Your task to perform on an android device: When is my next appointment? Image 0: 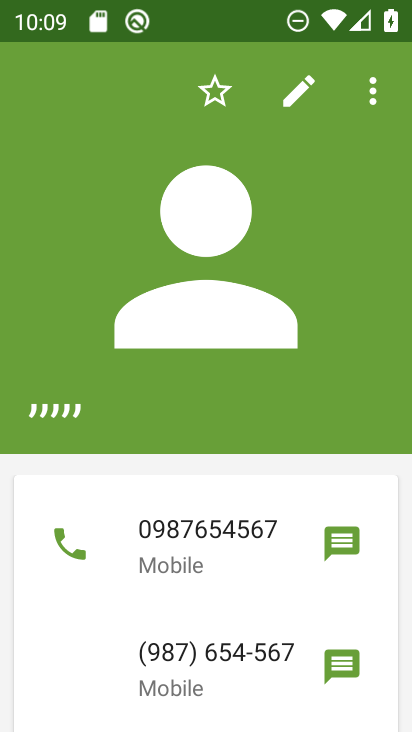
Step 0: press home button
Your task to perform on an android device: When is my next appointment? Image 1: 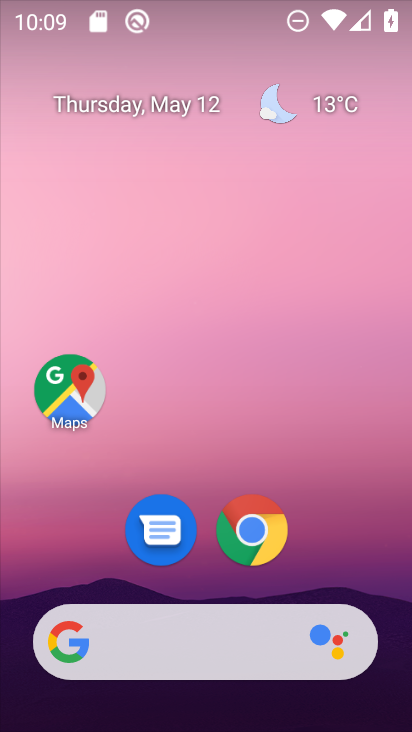
Step 1: drag from (325, 493) to (292, 28)
Your task to perform on an android device: When is my next appointment? Image 2: 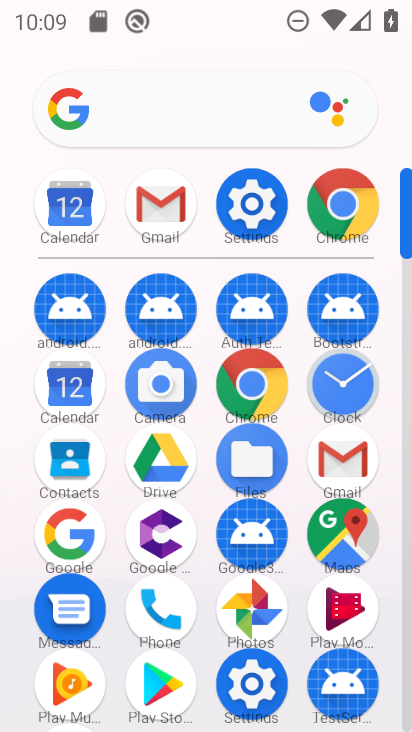
Step 2: click (77, 223)
Your task to perform on an android device: When is my next appointment? Image 3: 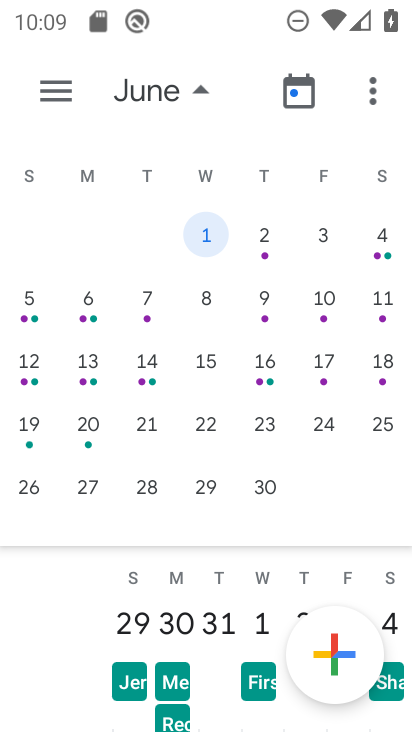
Step 3: click (32, 93)
Your task to perform on an android device: When is my next appointment? Image 4: 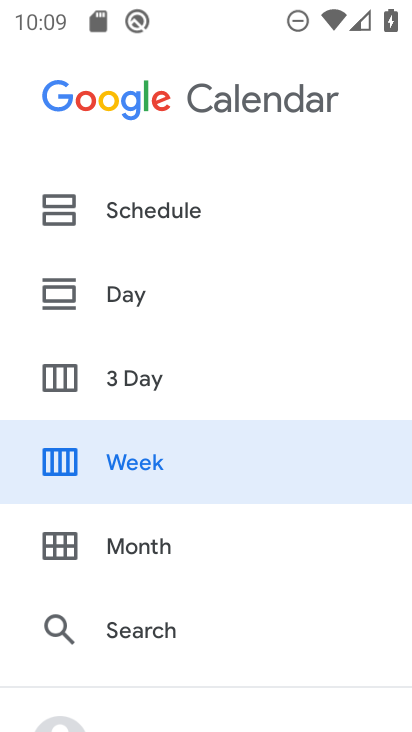
Step 4: click (111, 192)
Your task to perform on an android device: When is my next appointment? Image 5: 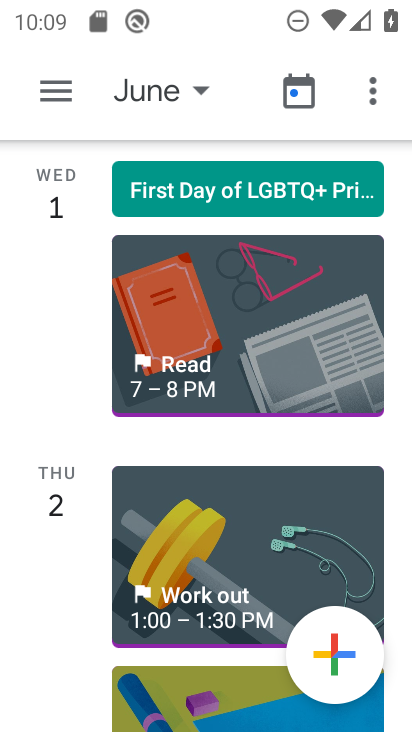
Step 5: task complete